Your task to perform on an android device: What is the recent news? Image 0: 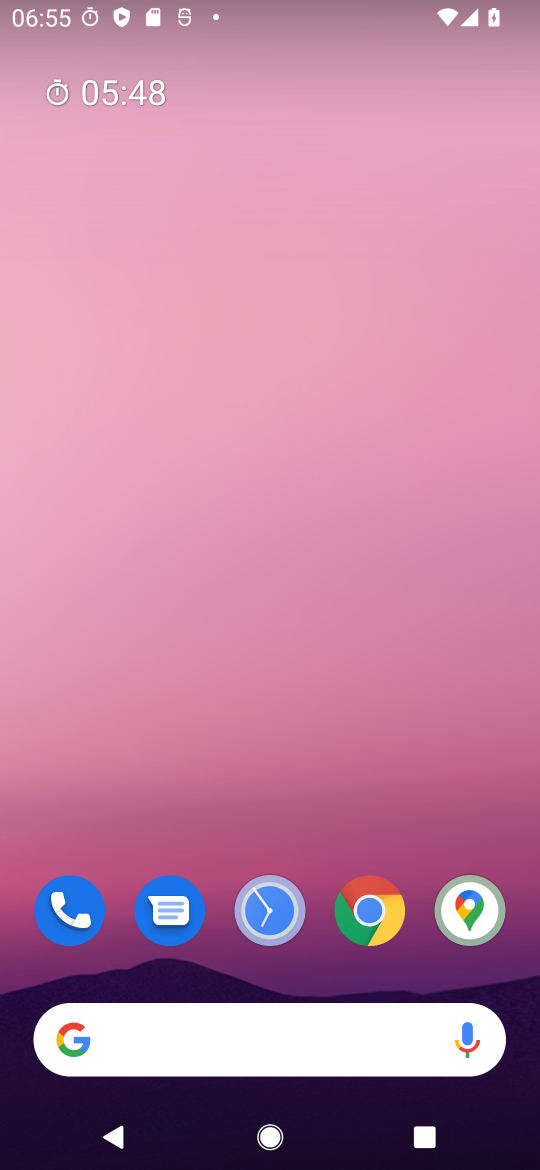
Step 0: drag from (383, 1007) to (289, 2)
Your task to perform on an android device: What is the recent news? Image 1: 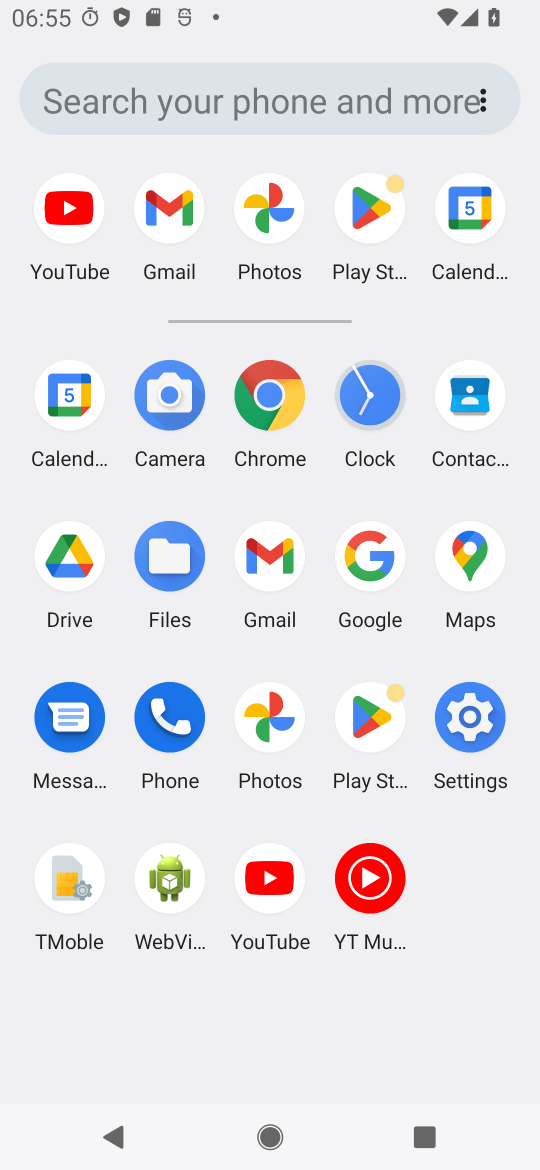
Step 1: click (281, 408)
Your task to perform on an android device: What is the recent news? Image 2: 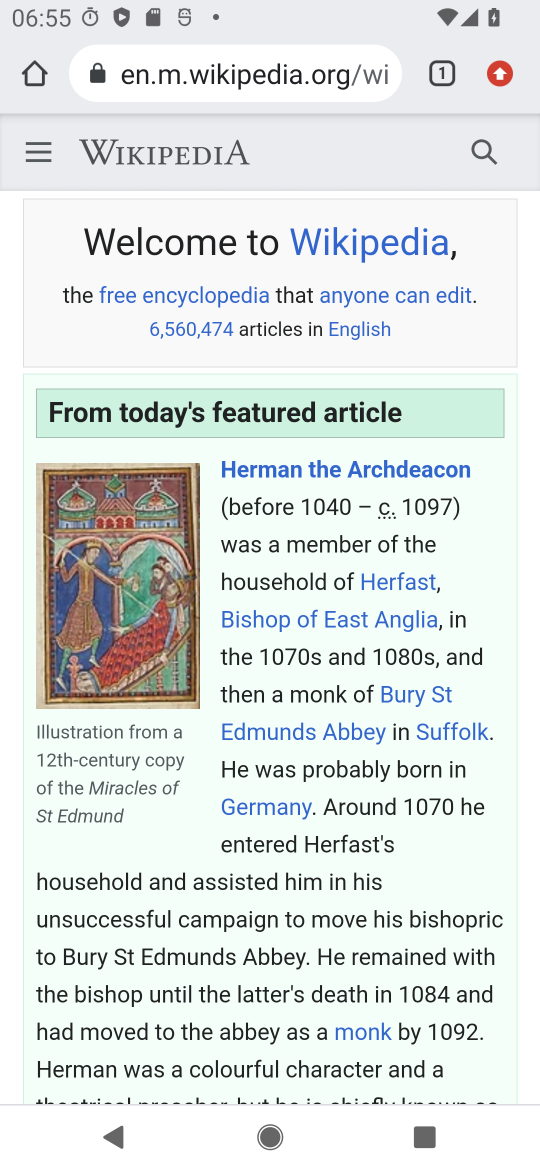
Step 2: click (230, 81)
Your task to perform on an android device: What is the recent news? Image 3: 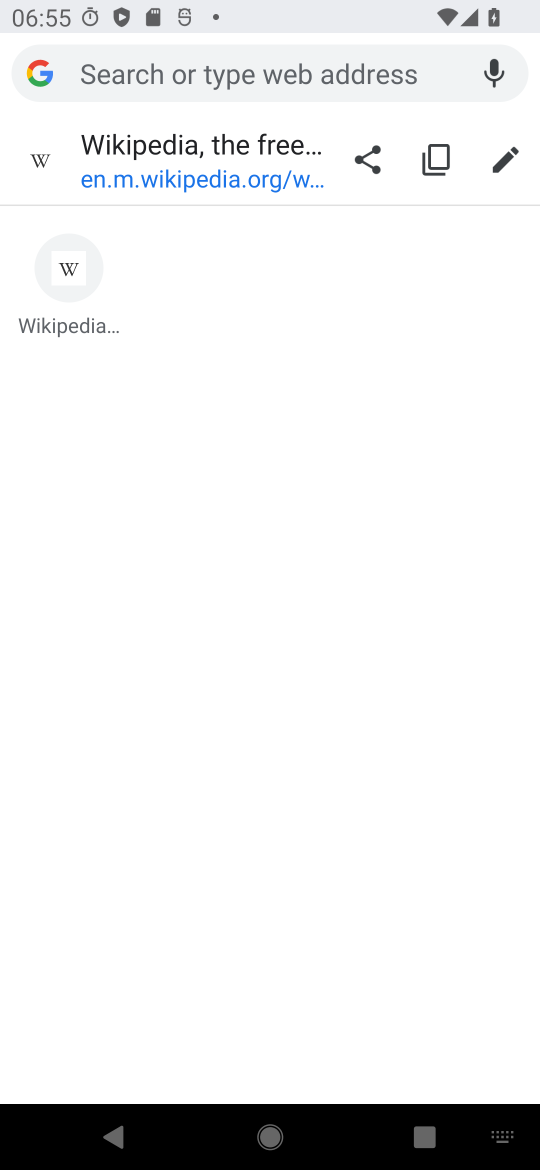
Step 3: type "recent news"
Your task to perform on an android device: What is the recent news? Image 4: 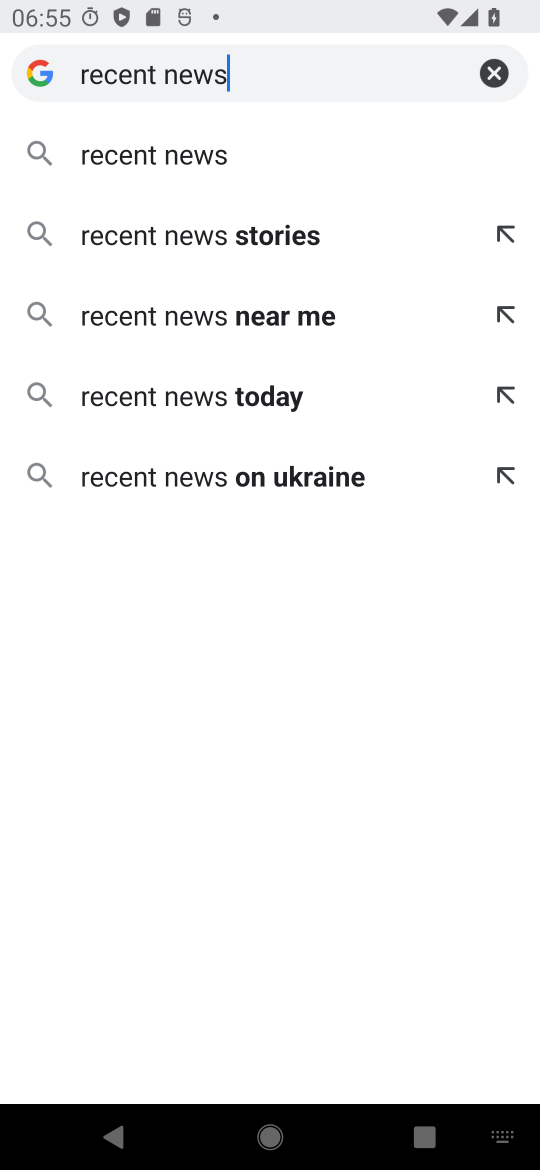
Step 4: click (167, 138)
Your task to perform on an android device: What is the recent news? Image 5: 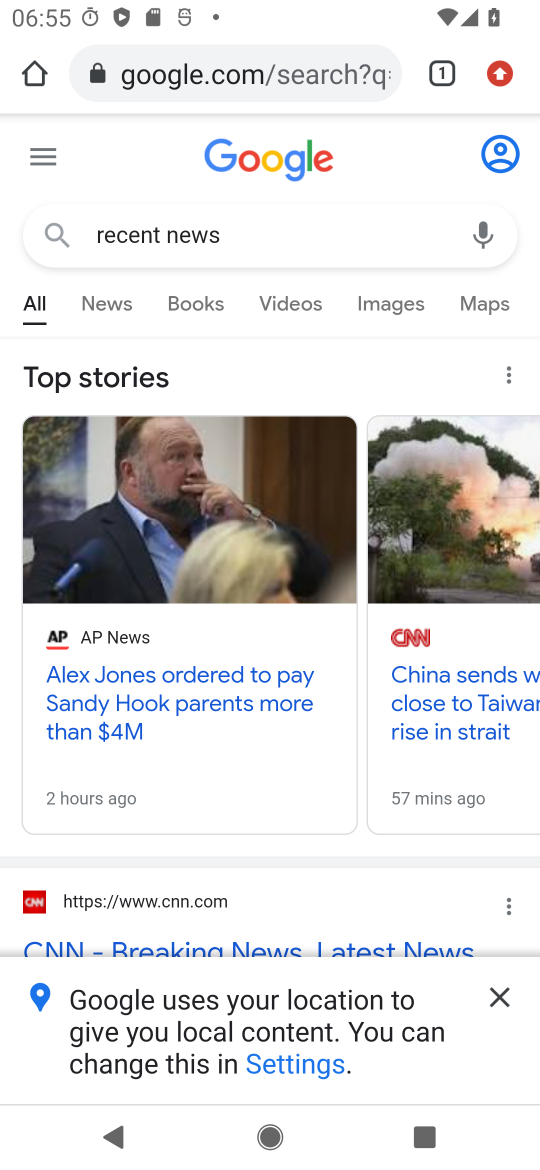
Step 5: task complete